Your task to perform on an android device: uninstall "Facebook" Image 0: 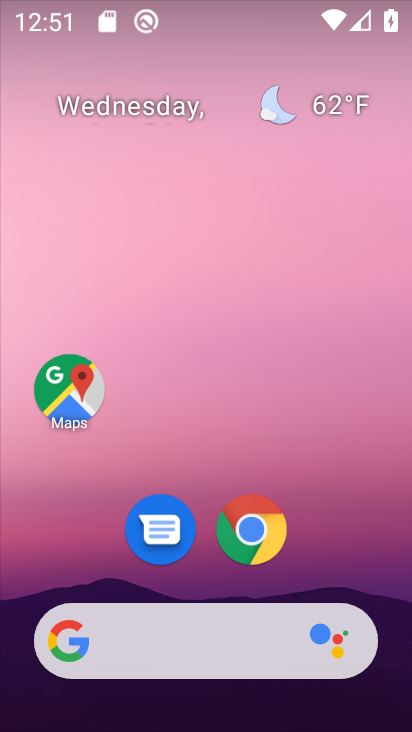
Step 0: drag from (206, 580) to (232, 117)
Your task to perform on an android device: uninstall "Facebook" Image 1: 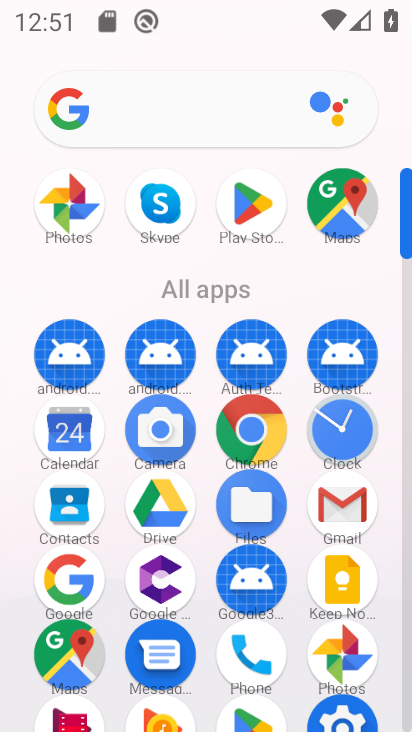
Step 1: click (244, 207)
Your task to perform on an android device: uninstall "Facebook" Image 2: 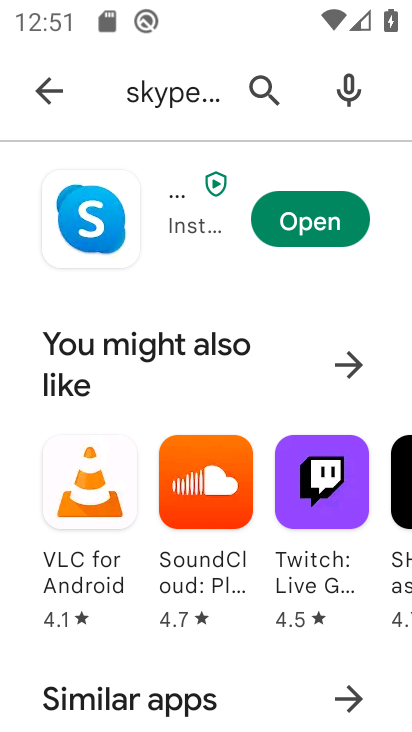
Step 2: click (62, 90)
Your task to perform on an android device: uninstall "Facebook" Image 3: 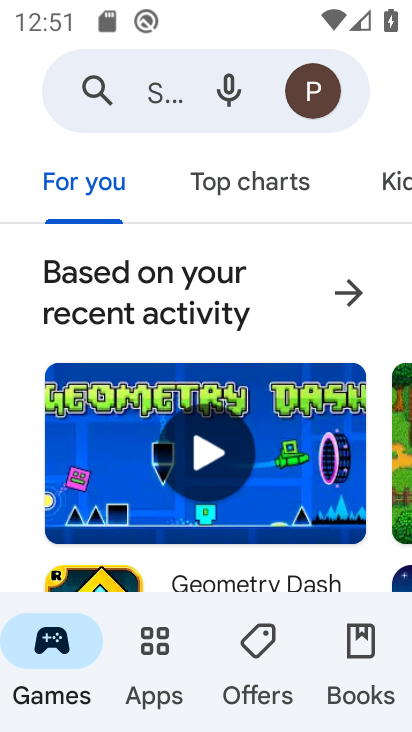
Step 3: click (142, 88)
Your task to perform on an android device: uninstall "Facebook" Image 4: 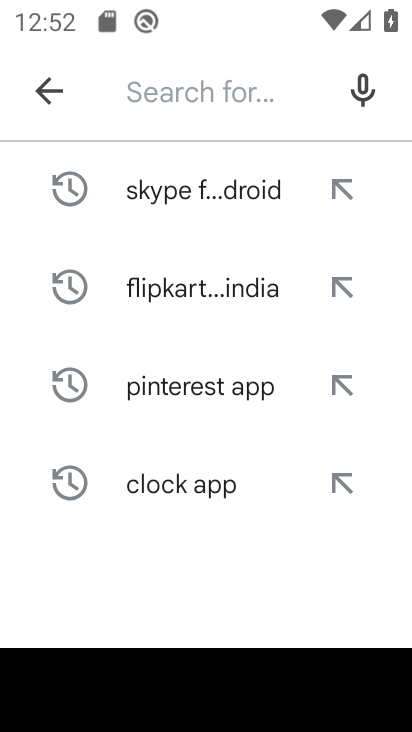
Step 4: type "facebook "
Your task to perform on an android device: uninstall "Facebook" Image 5: 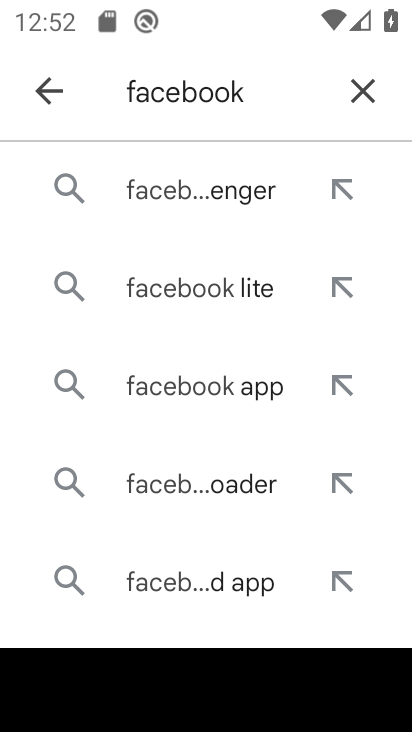
Step 5: click (194, 594)
Your task to perform on an android device: uninstall "Facebook" Image 6: 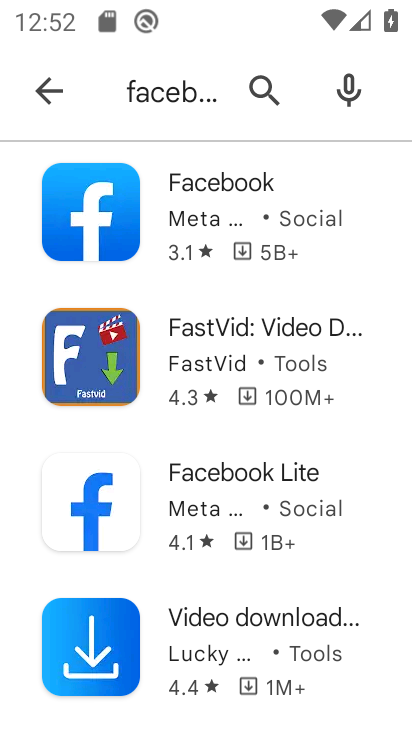
Step 6: click (189, 205)
Your task to perform on an android device: uninstall "Facebook" Image 7: 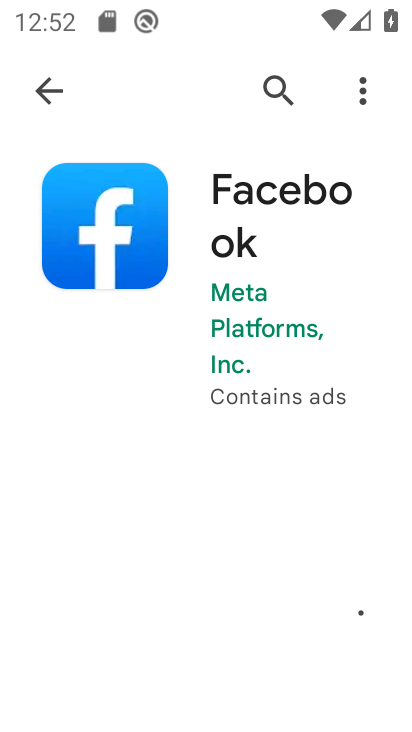
Step 7: click (48, 78)
Your task to perform on an android device: uninstall "Facebook" Image 8: 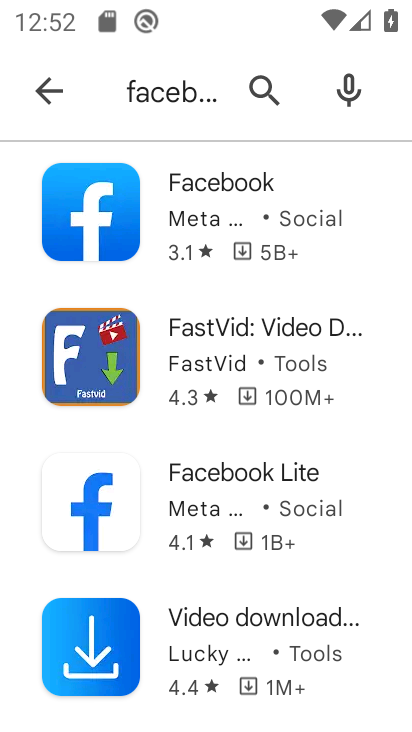
Step 8: click (202, 473)
Your task to perform on an android device: uninstall "Facebook" Image 9: 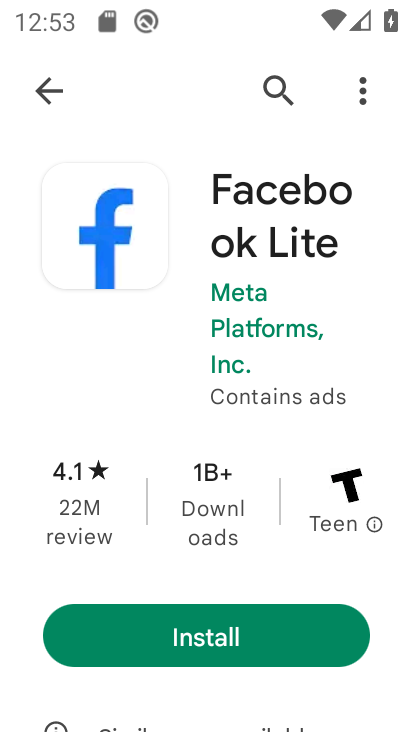
Step 9: task complete